Your task to perform on an android device: What's the weather going to be tomorrow? Image 0: 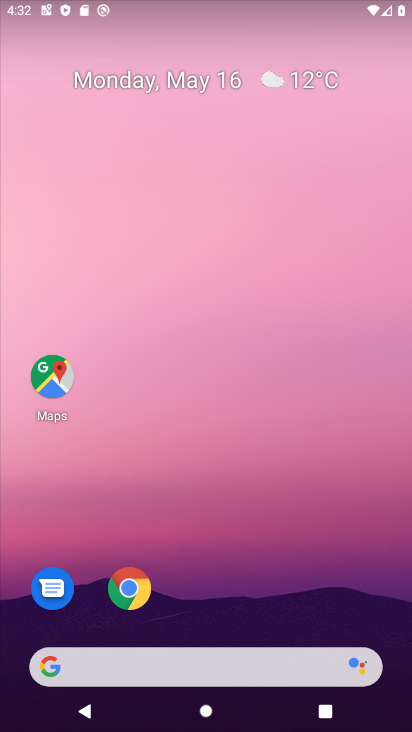
Step 0: drag from (193, 591) to (211, 693)
Your task to perform on an android device: What's the weather going to be tomorrow? Image 1: 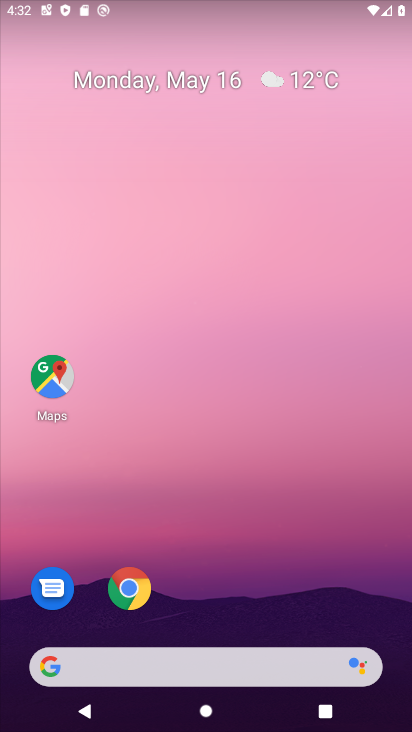
Step 1: click (273, 80)
Your task to perform on an android device: What's the weather going to be tomorrow? Image 2: 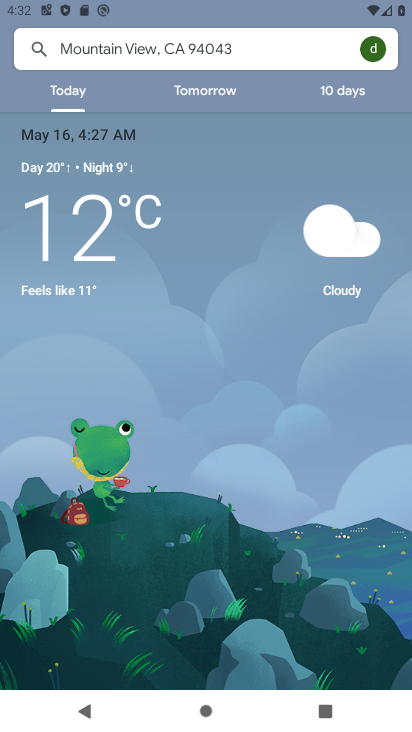
Step 2: click (201, 78)
Your task to perform on an android device: What's the weather going to be tomorrow? Image 3: 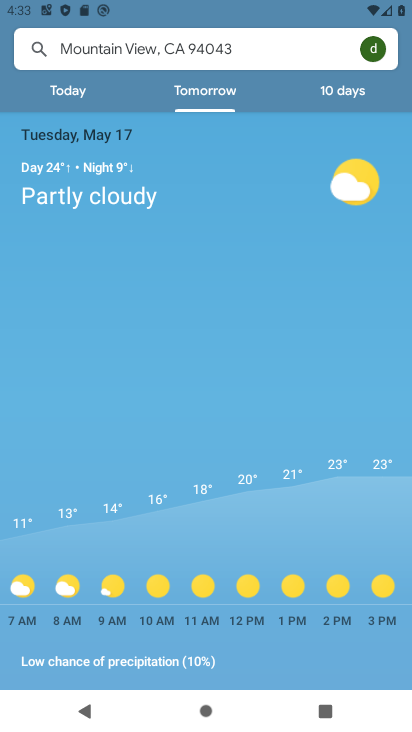
Step 3: task complete